Your task to perform on an android device: change the clock style Image 0: 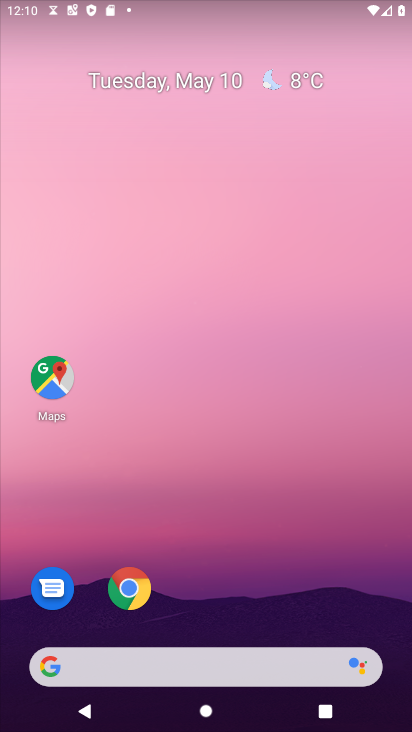
Step 0: drag from (192, 647) to (374, 82)
Your task to perform on an android device: change the clock style Image 1: 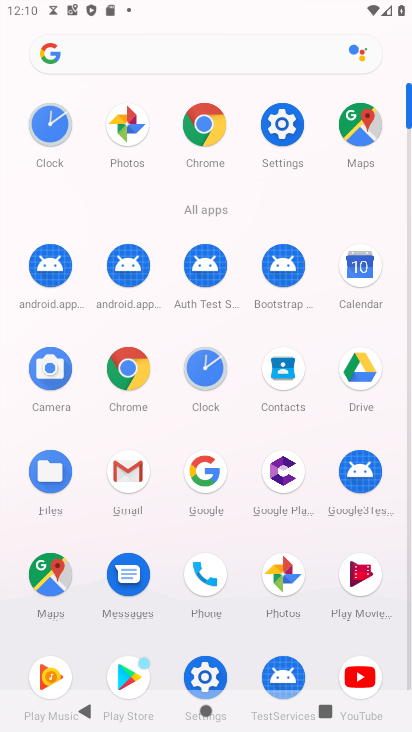
Step 1: click (207, 381)
Your task to perform on an android device: change the clock style Image 2: 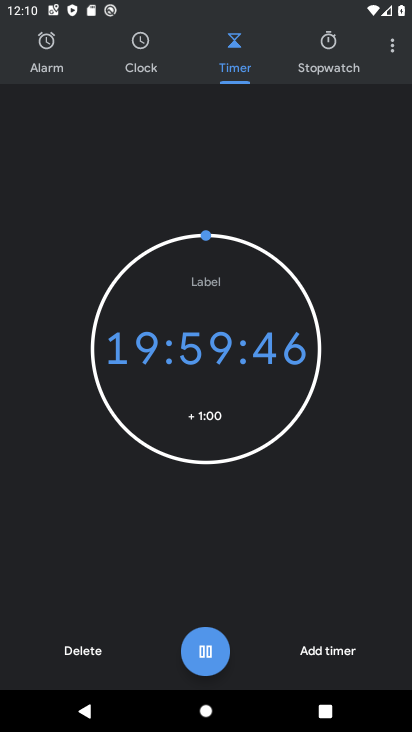
Step 2: click (386, 43)
Your task to perform on an android device: change the clock style Image 3: 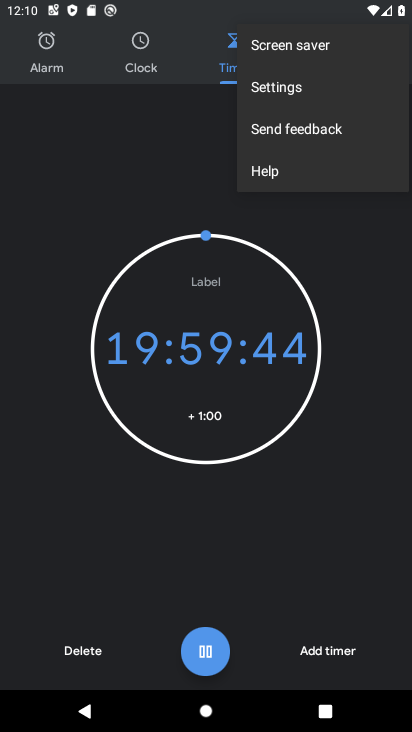
Step 3: click (354, 89)
Your task to perform on an android device: change the clock style Image 4: 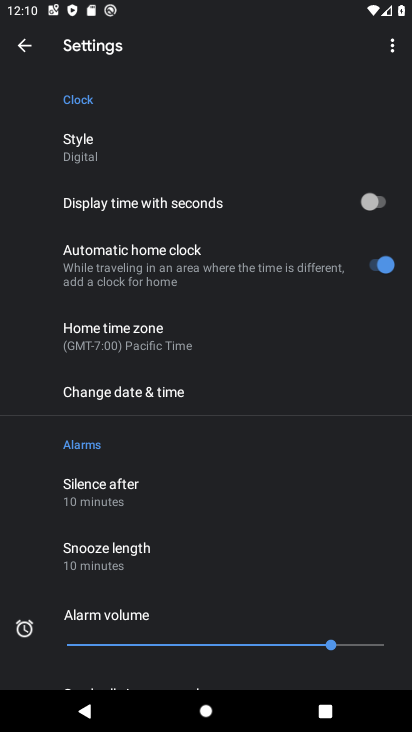
Step 4: drag from (240, 155) to (204, 609)
Your task to perform on an android device: change the clock style Image 5: 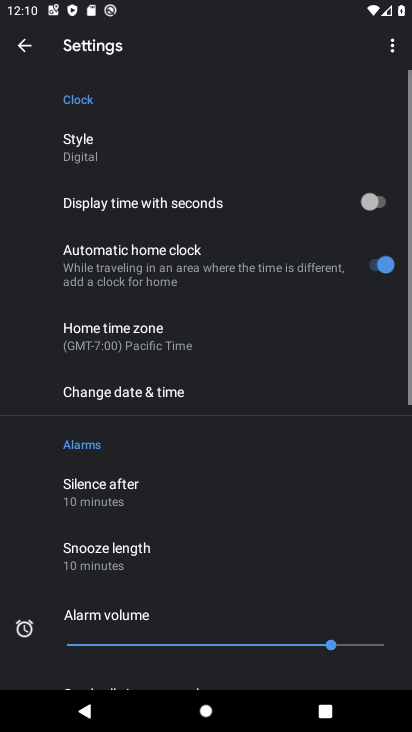
Step 5: click (149, 150)
Your task to perform on an android device: change the clock style Image 6: 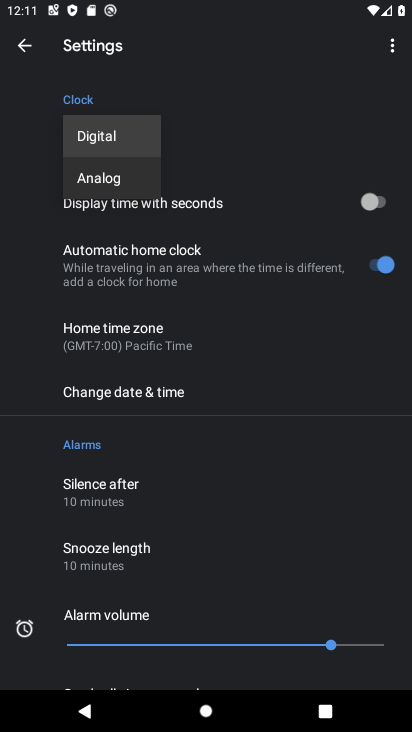
Step 6: click (128, 177)
Your task to perform on an android device: change the clock style Image 7: 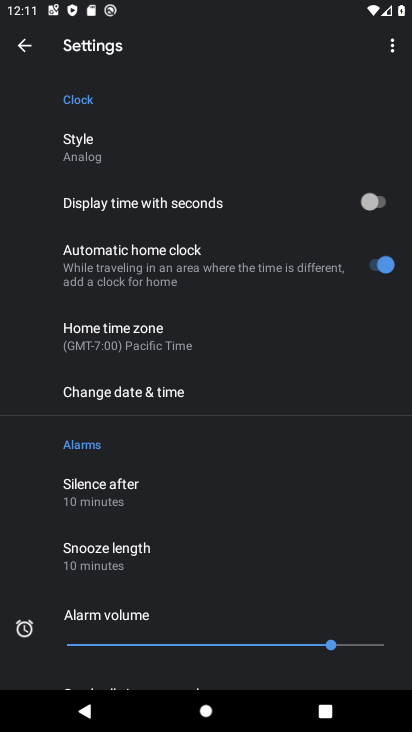
Step 7: task complete